Your task to perform on an android device: turn off smart reply in the gmail app Image 0: 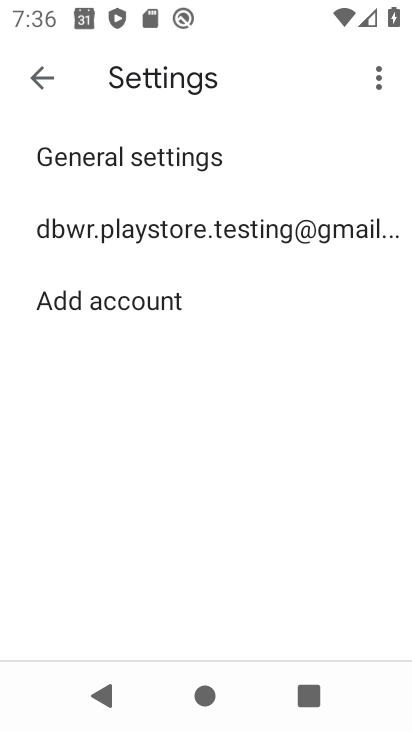
Step 0: click (87, 236)
Your task to perform on an android device: turn off smart reply in the gmail app Image 1: 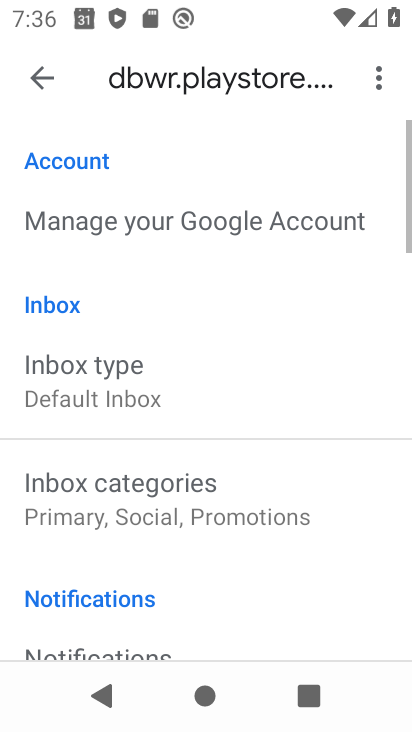
Step 1: drag from (164, 567) to (143, 25)
Your task to perform on an android device: turn off smart reply in the gmail app Image 2: 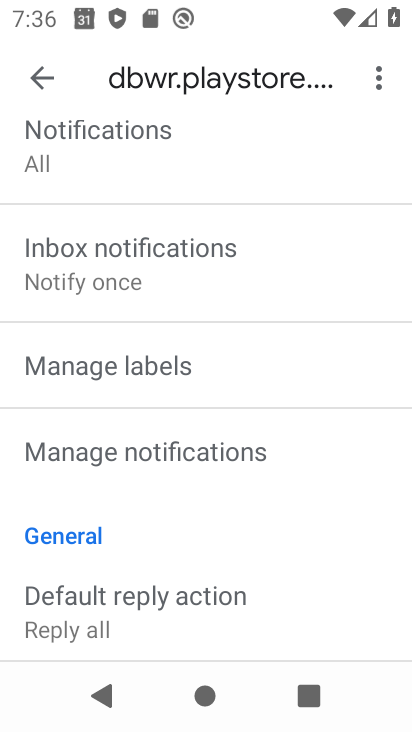
Step 2: drag from (143, 516) to (77, 29)
Your task to perform on an android device: turn off smart reply in the gmail app Image 3: 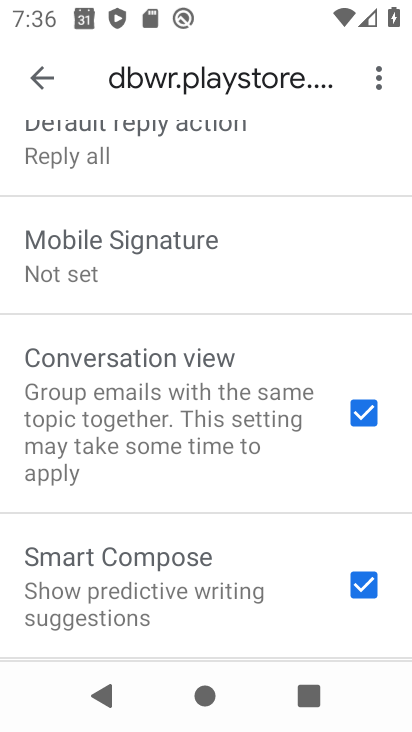
Step 3: drag from (160, 556) to (132, 176)
Your task to perform on an android device: turn off smart reply in the gmail app Image 4: 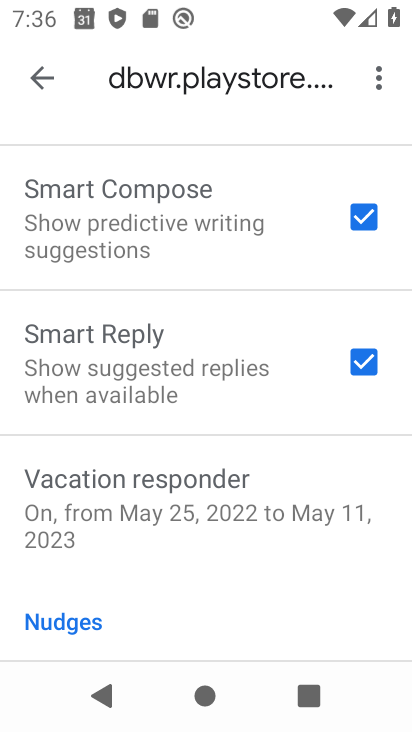
Step 4: click (360, 369)
Your task to perform on an android device: turn off smart reply in the gmail app Image 5: 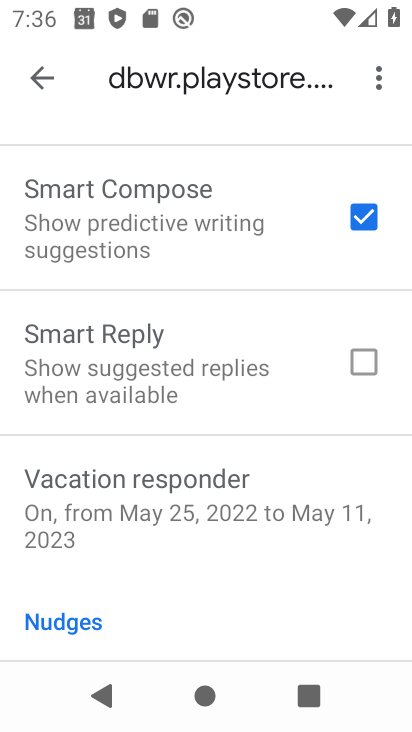
Step 5: task complete